Your task to perform on an android device: Open ESPN.com Image 0: 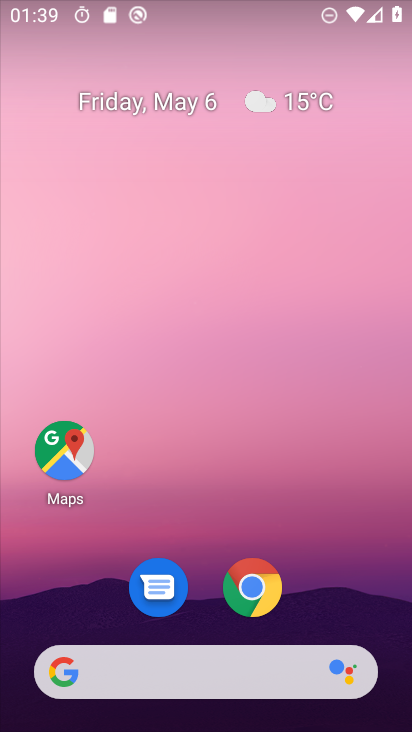
Step 0: click (246, 589)
Your task to perform on an android device: Open ESPN.com Image 1: 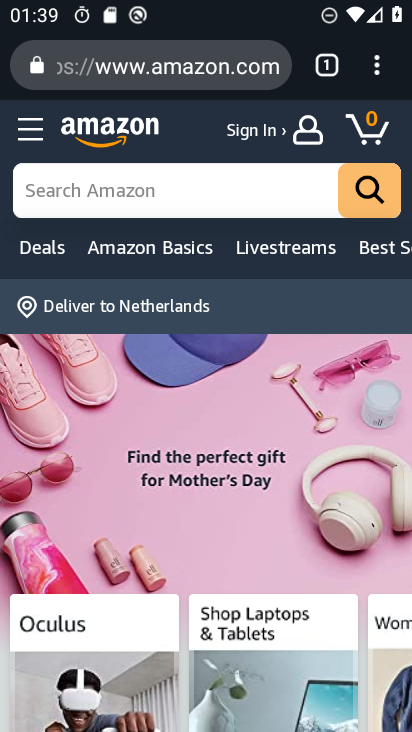
Step 1: click (284, 63)
Your task to perform on an android device: Open ESPN.com Image 2: 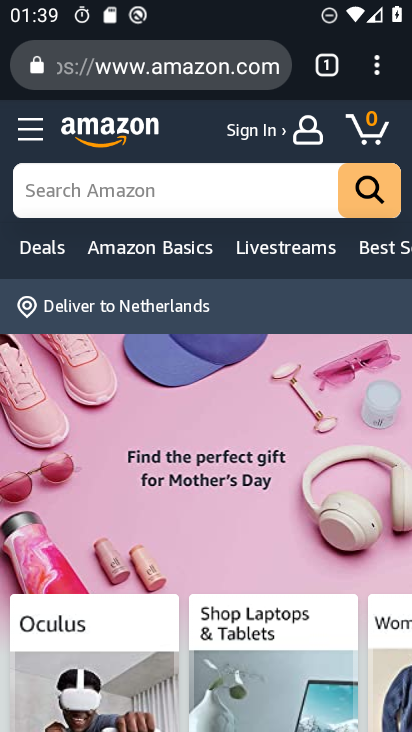
Step 2: click (282, 62)
Your task to perform on an android device: Open ESPN.com Image 3: 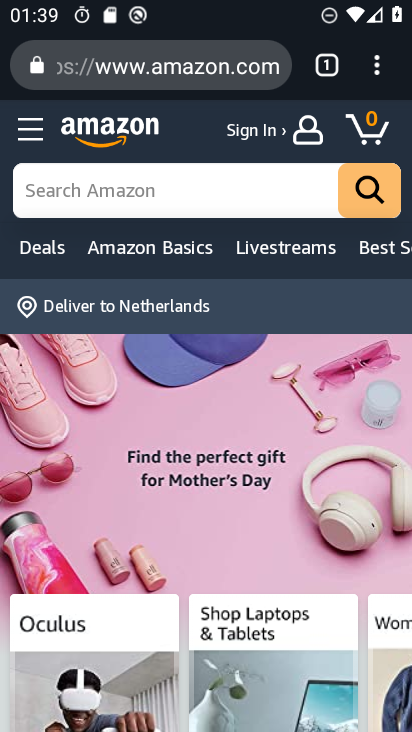
Step 3: click (275, 70)
Your task to perform on an android device: Open ESPN.com Image 4: 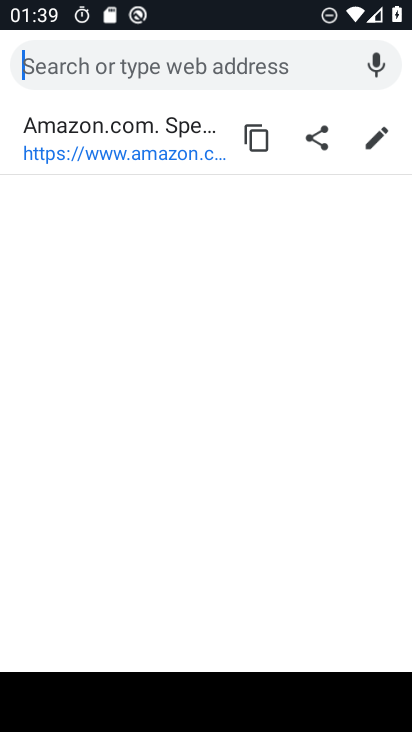
Step 4: type "ESPN.com"
Your task to perform on an android device: Open ESPN.com Image 5: 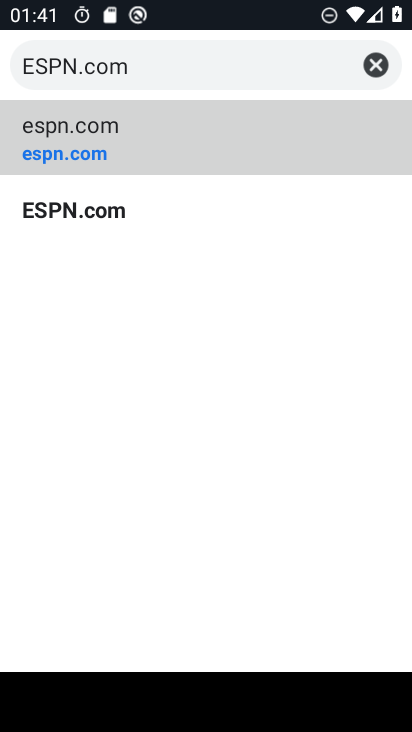
Step 5: click (57, 195)
Your task to perform on an android device: Open ESPN.com Image 6: 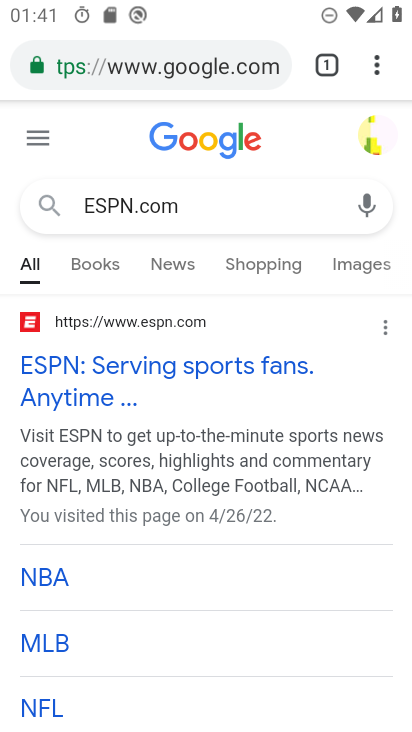
Step 6: task complete